Your task to perform on an android device: Open display settings Image 0: 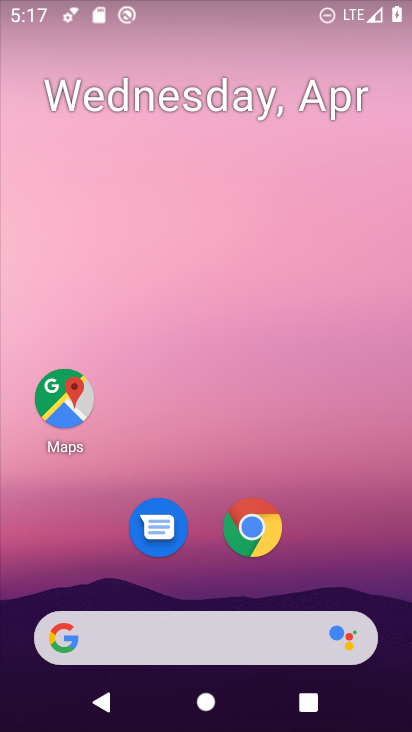
Step 0: drag from (363, 587) to (381, 3)
Your task to perform on an android device: Open display settings Image 1: 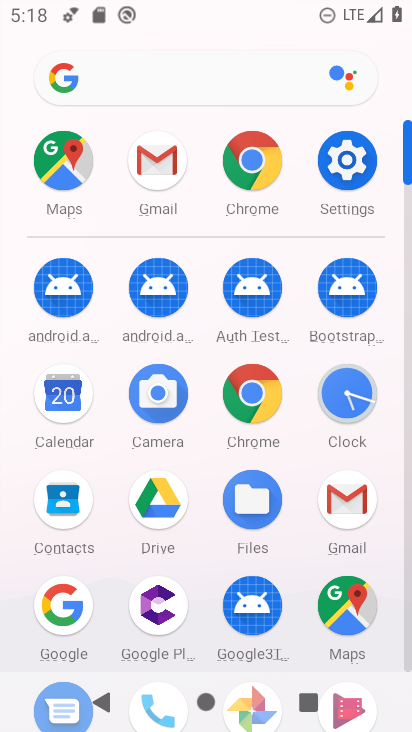
Step 1: click (350, 157)
Your task to perform on an android device: Open display settings Image 2: 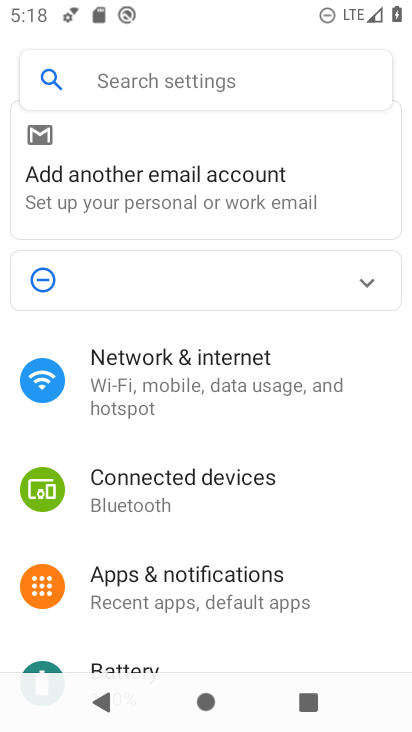
Step 2: drag from (358, 505) to (339, 152)
Your task to perform on an android device: Open display settings Image 3: 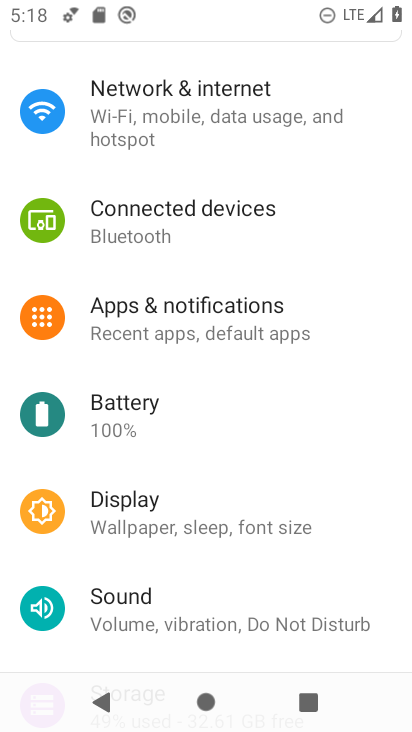
Step 3: click (124, 505)
Your task to perform on an android device: Open display settings Image 4: 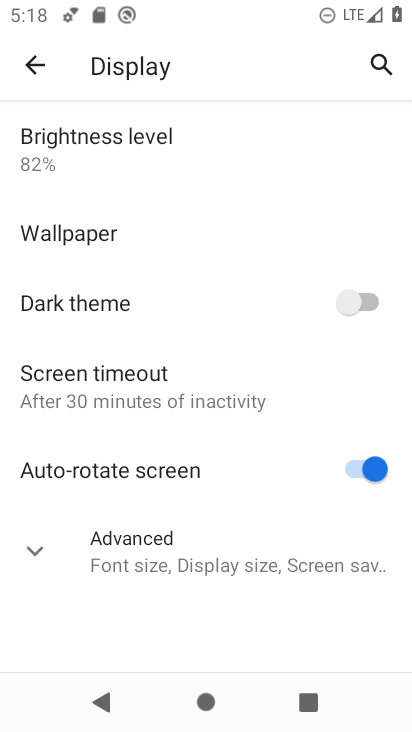
Step 4: drag from (182, 474) to (175, 228)
Your task to perform on an android device: Open display settings Image 5: 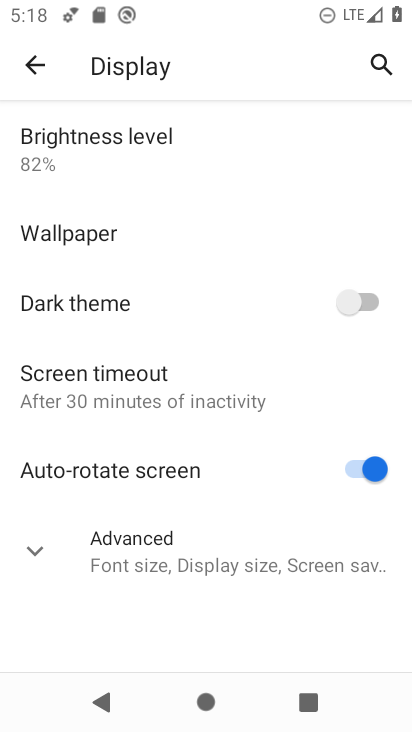
Step 5: click (36, 559)
Your task to perform on an android device: Open display settings Image 6: 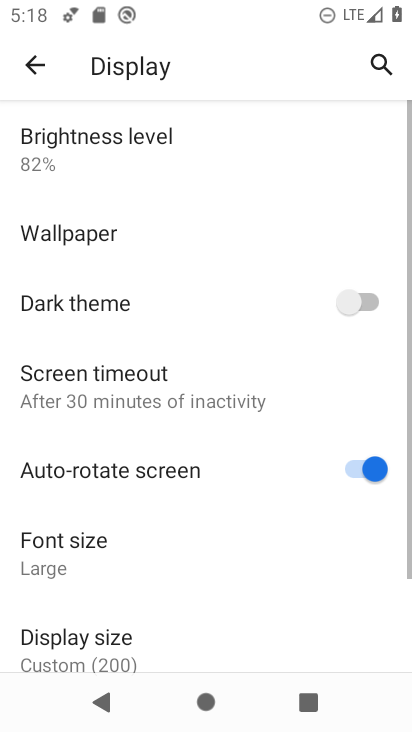
Step 6: task complete